Your task to perform on an android device: check battery use Image 0: 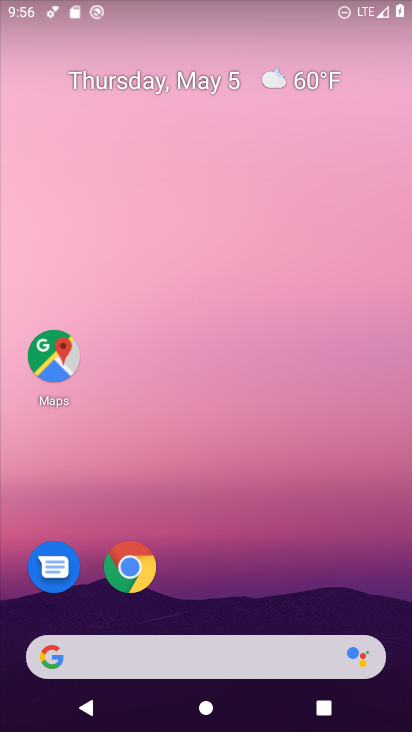
Step 0: drag from (223, 719) to (228, 82)
Your task to perform on an android device: check battery use Image 1: 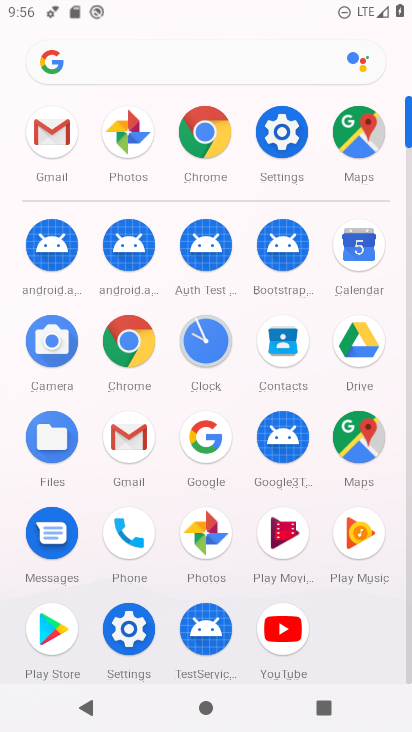
Step 1: click (280, 133)
Your task to perform on an android device: check battery use Image 2: 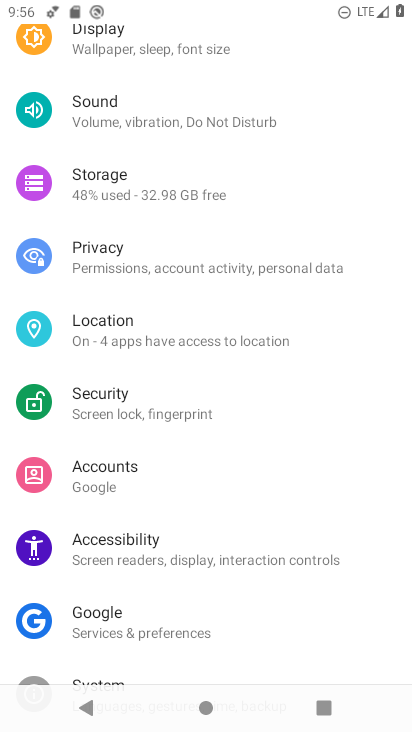
Step 2: drag from (138, 372) to (138, 225)
Your task to perform on an android device: check battery use Image 3: 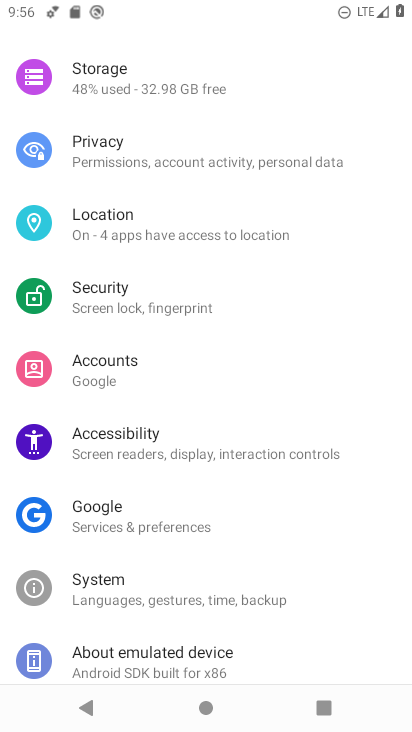
Step 3: drag from (204, 65) to (203, 405)
Your task to perform on an android device: check battery use Image 4: 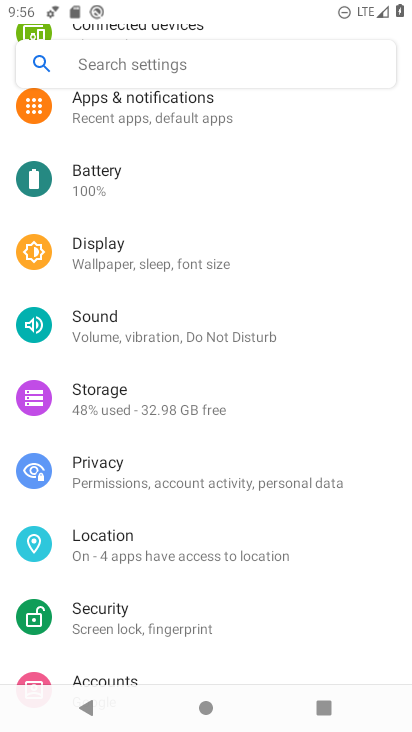
Step 4: click (85, 179)
Your task to perform on an android device: check battery use Image 5: 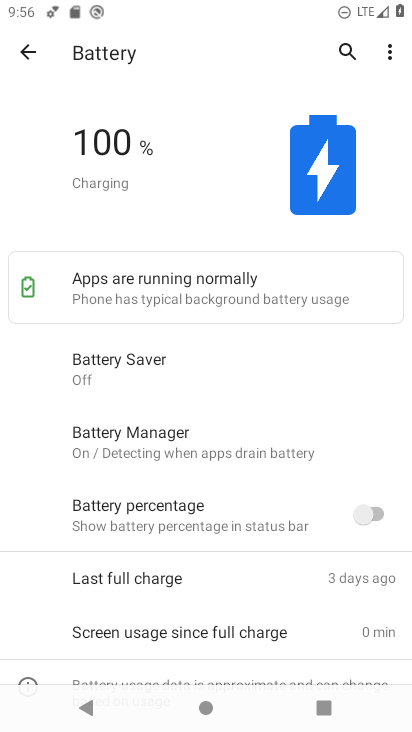
Step 5: click (389, 46)
Your task to perform on an android device: check battery use Image 6: 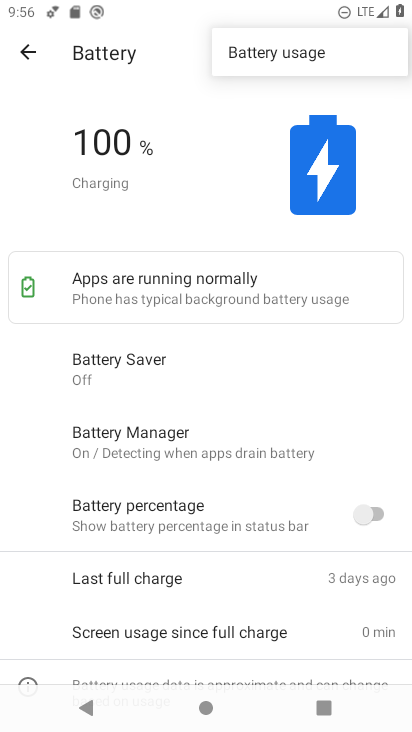
Step 6: click (288, 51)
Your task to perform on an android device: check battery use Image 7: 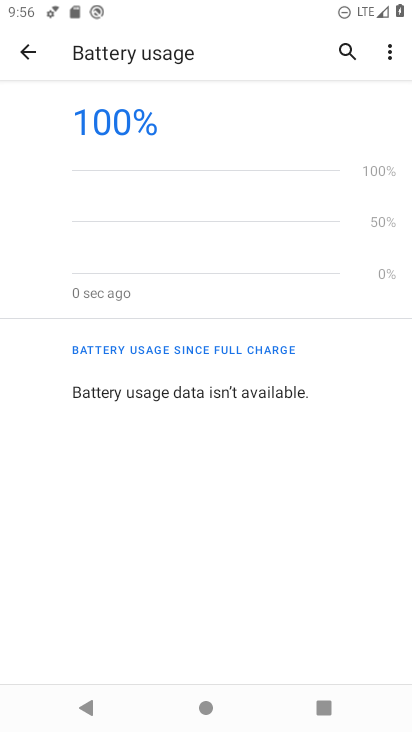
Step 7: task complete